Your task to perform on an android device: Find coffee shops on Maps Image 0: 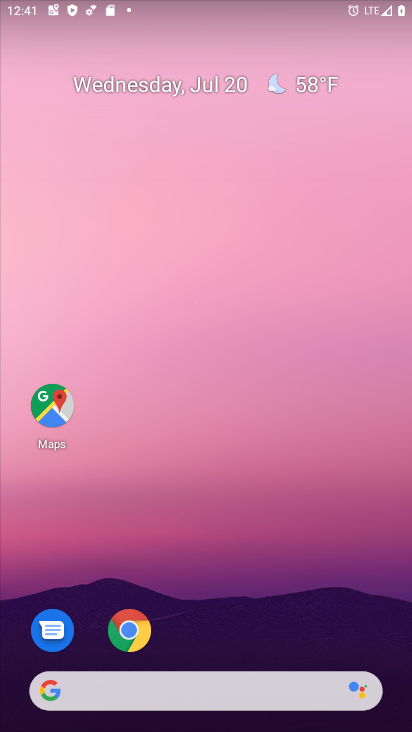
Step 0: drag from (262, 688) to (275, 253)
Your task to perform on an android device: Find coffee shops on Maps Image 1: 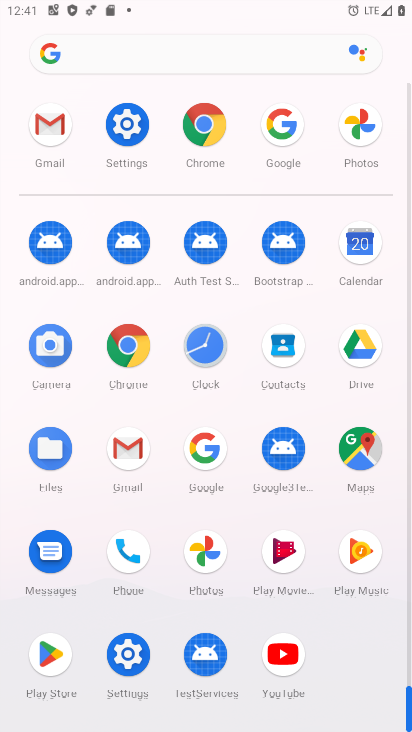
Step 1: click (358, 458)
Your task to perform on an android device: Find coffee shops on Maps Image 2: 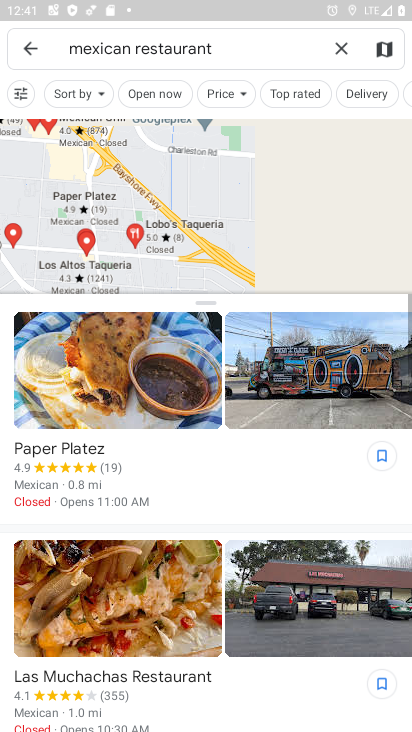
Step 2: click (340, 49)
Your task to perform on an android device: Find coffee shops on Maps Image 3: 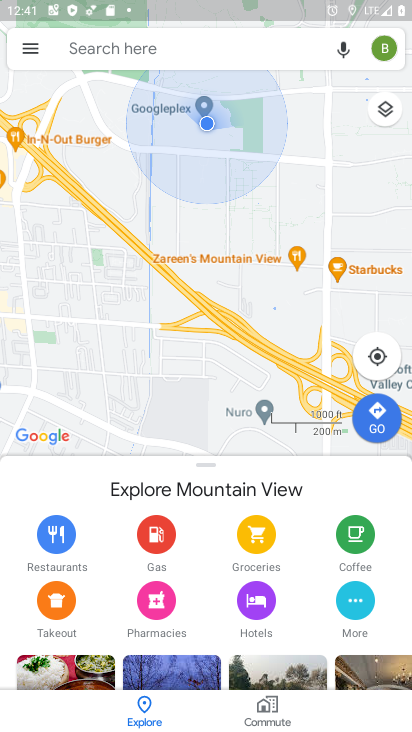
Step 3: click (238, 54)
Your task to perform on an android device: Find coffee shops on Maps Image 4: 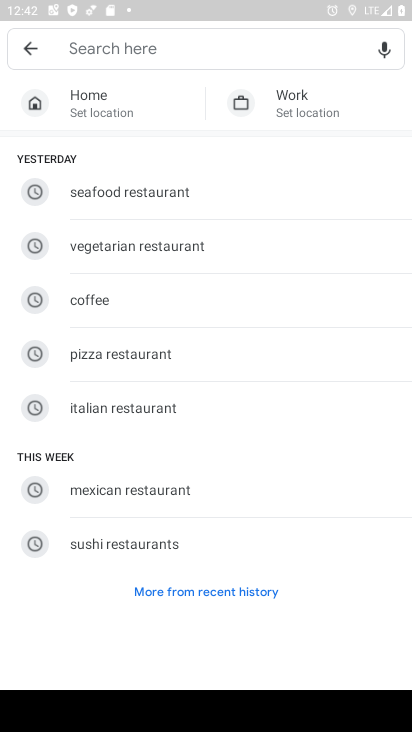
Step 4: type "coffee shops"
Your task to perform on an android device: Find coffee shops on Maps Image 5: 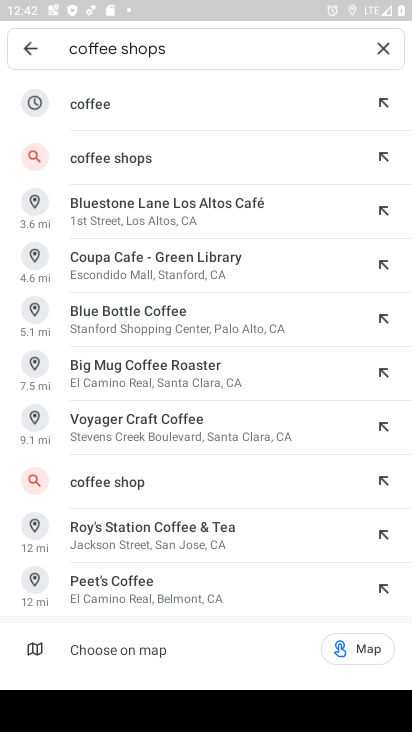
Step 5: click (162, 157)
Your task to perform on an android device: Find coffee shops on Maps Image 6: 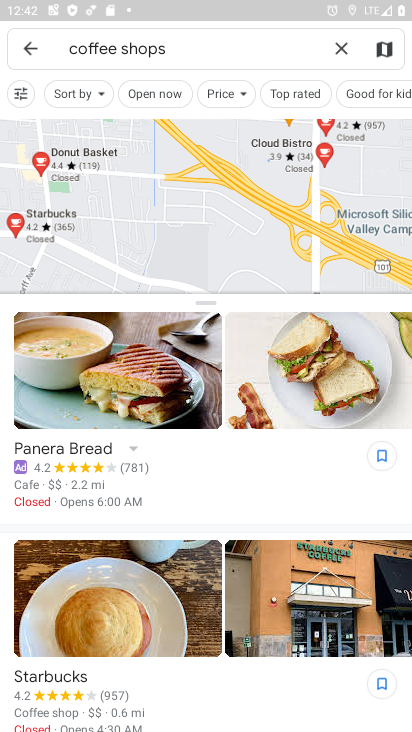
Step 6: task complete